Your task to perform on an android device: What's the price of the TCL TV? Image 0: 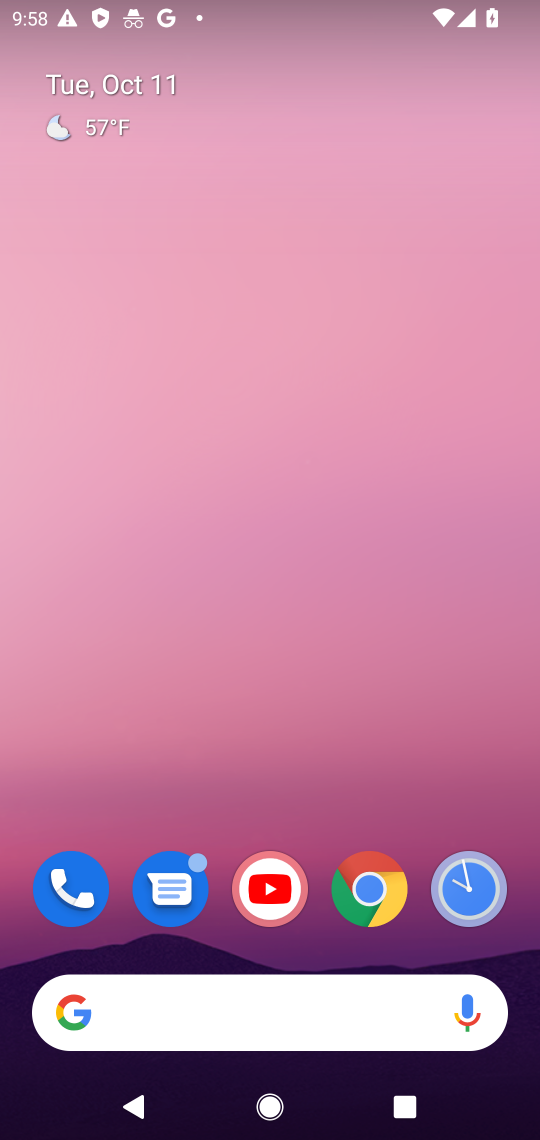
Step 0: click (277, 1016)
Your task to perform on an android device: What's the price of the TCL TV? Image 1: 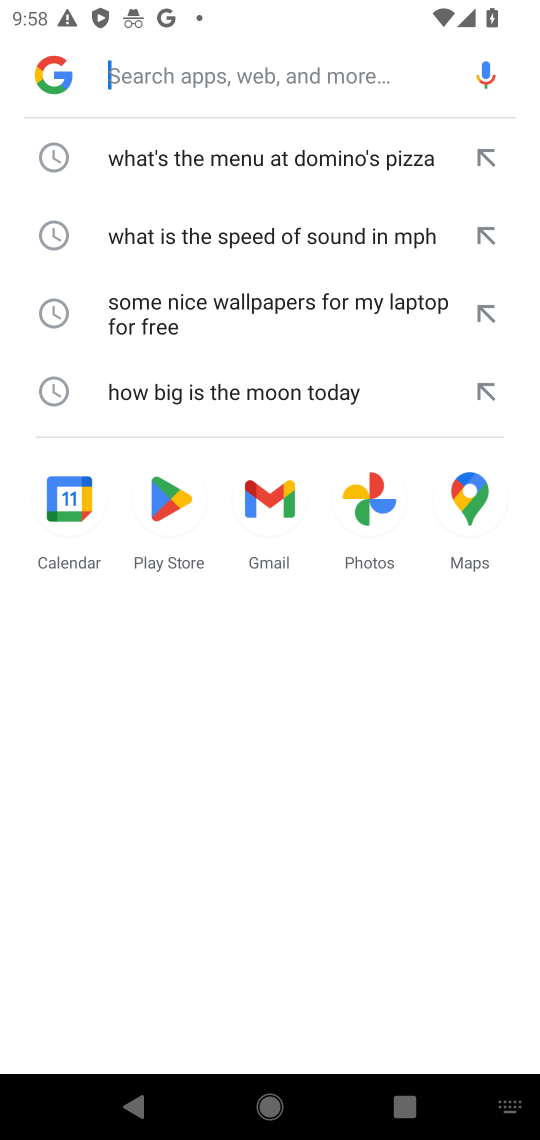
Step 1: click (177, 66)
Your task to perform on an android device: What's the price of the TCL TV? Image 2: 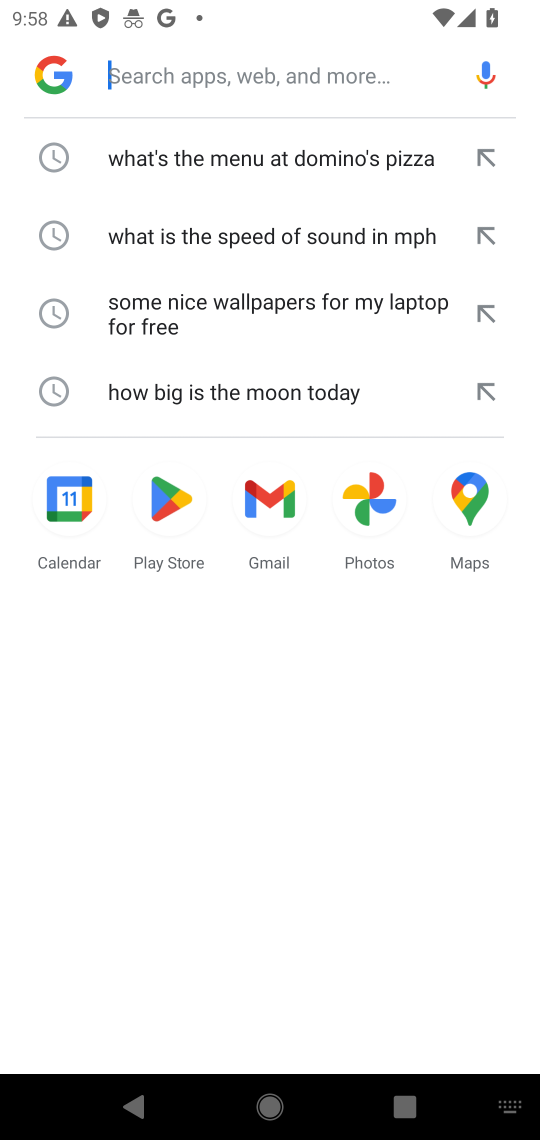
Step 2: type "What's the price of the TCL TV?"
Your task to perform on an android device: What's the price of the TCL TV? Image 3: 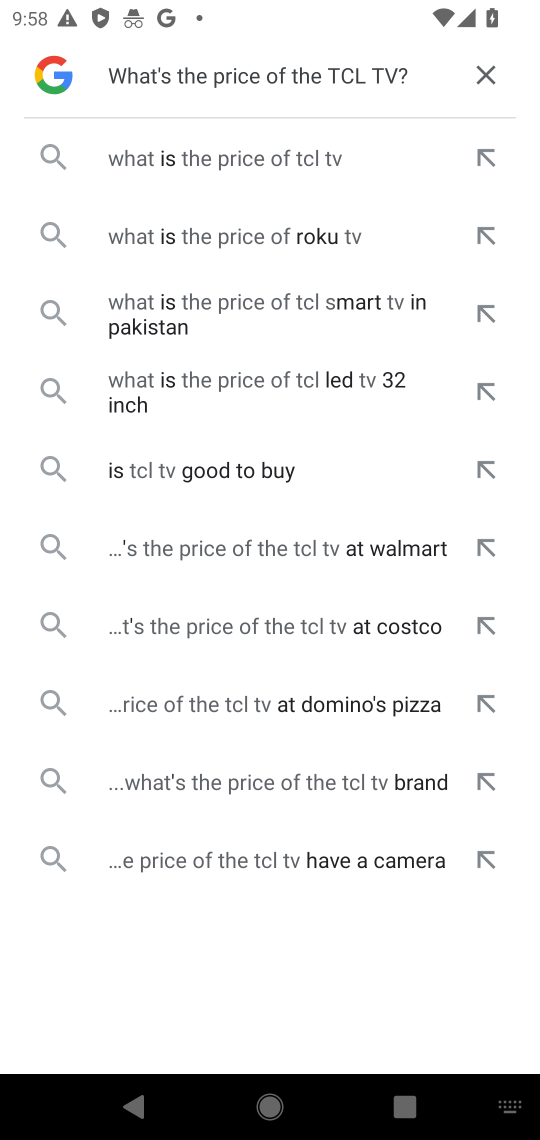
Step 3: click (254, 170)
Your task to perform on an android device: What's the price of the TCL TV? Image 4: 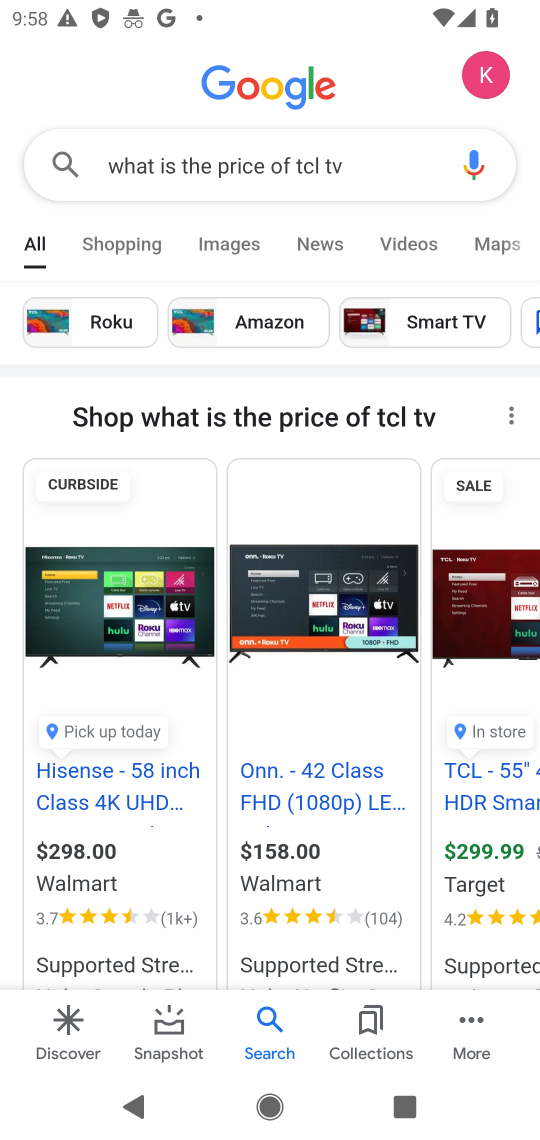
Step 4: task complete